Your task to perform on an android device: open the mobile data screen to see how much data has been used Image 0: 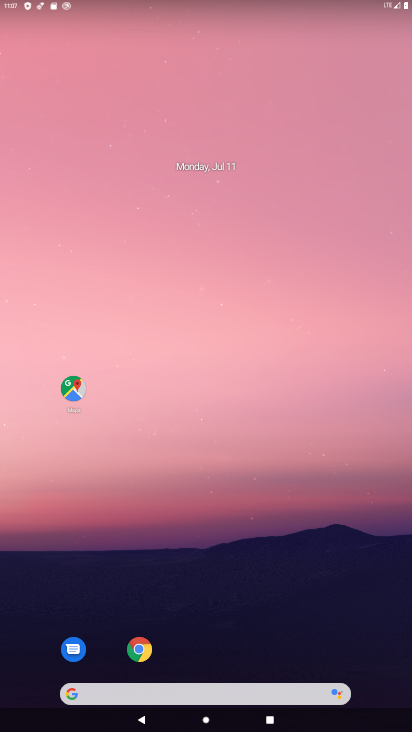
Step 0: drag from (315, 617) to (253, 107)
Your task to perform on an android device: open the mobile data screen to see how much data has been used Image 1: 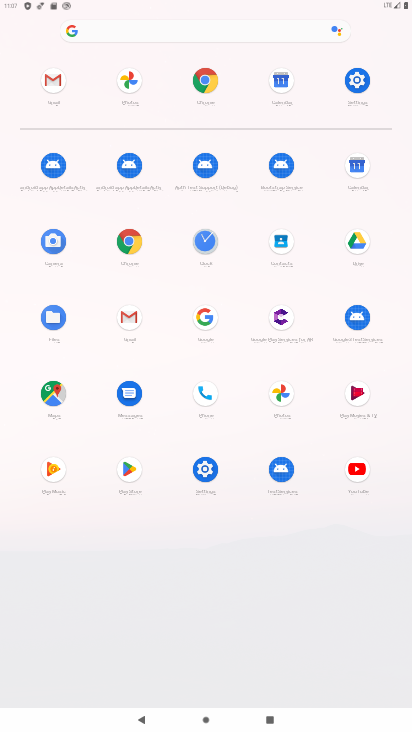
Step 1: click (362, 81)
Your task to perform on an android device: open the mobile data screen to see how much data has been used Image 2: 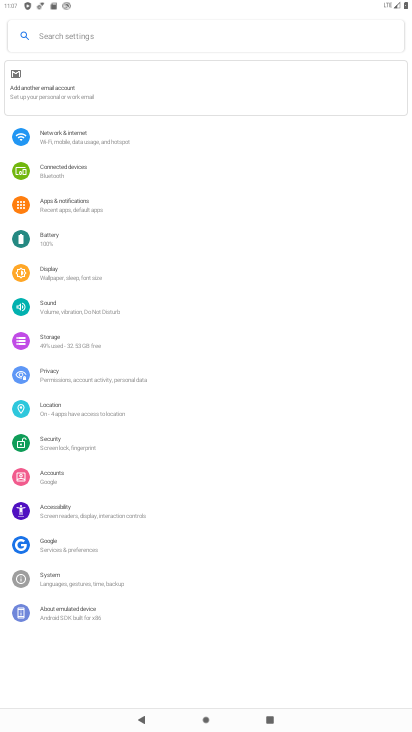
Step 2: click (105, 139)
Your task to perform on an android device: open the mobile data screen to see how much data has been used Image 3: 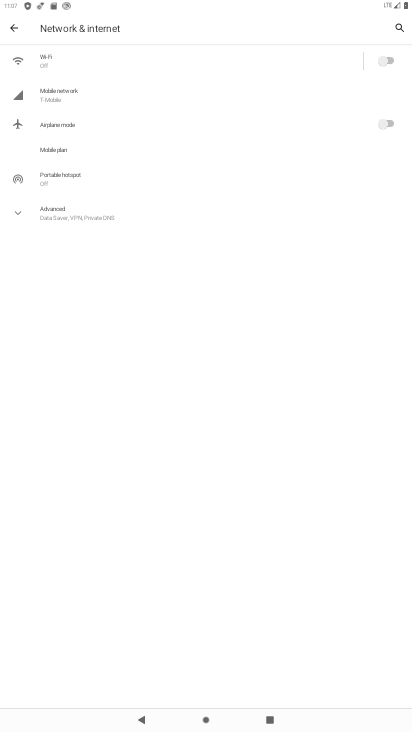
Step 3: click (124, 99)
Your task to perform on an android device: open the mobile data screen to see how much data has been used Image 4: 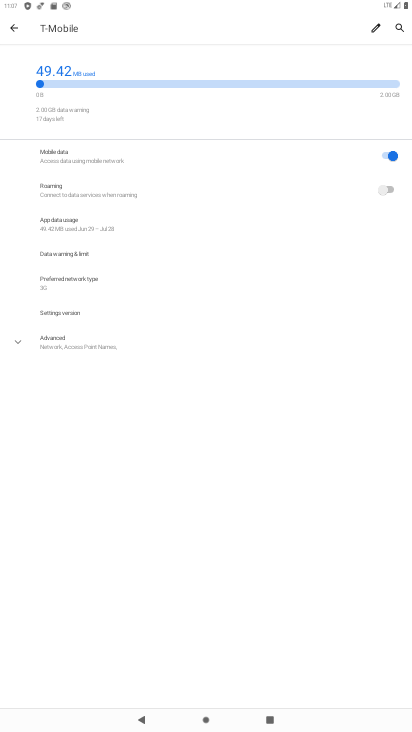
Step 4: task complete